Your task to perform on an android device: check data usage Image 0: 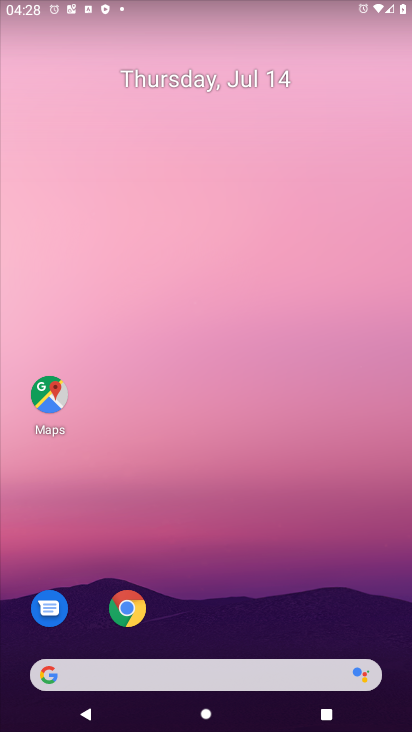
Step 0: drag from (371, 628) to (313, 80)
Your task to perform on an android device: check data usage Image 1: 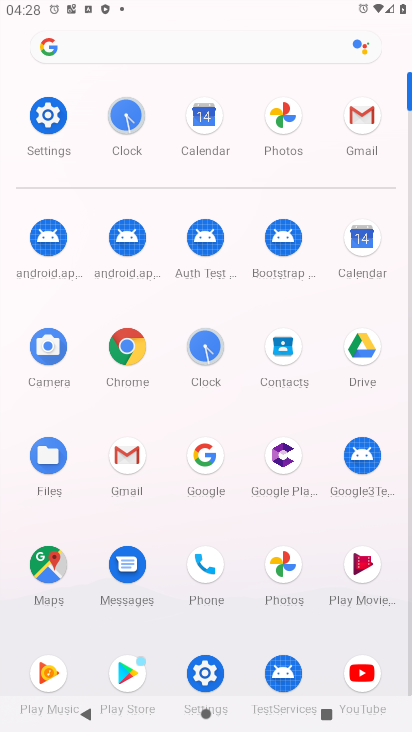
Step 1: click (203, 670)
Your task to perform on an android device: check data usage Image 2: 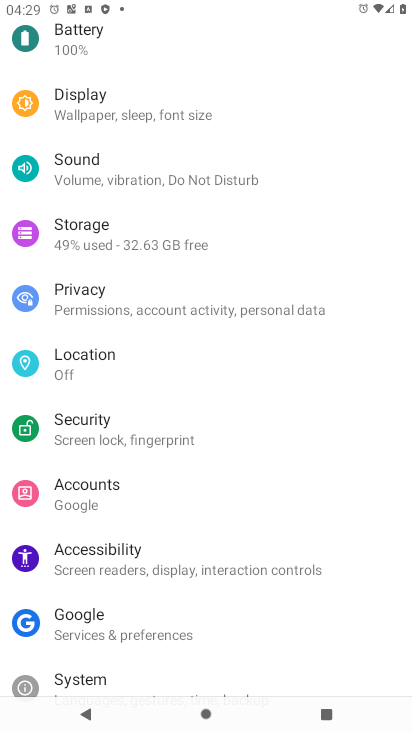
Step 2: drag from (313, 125) to (341, 364)
Your task to perform on an android device: check data usage Image 3: 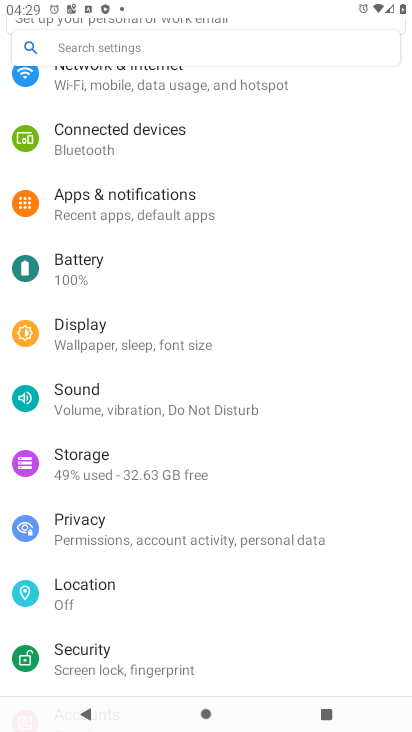
Step 3: drag from (290, 138) to (300, 447)
Your task to perform on an android device: check data usage Image 4: 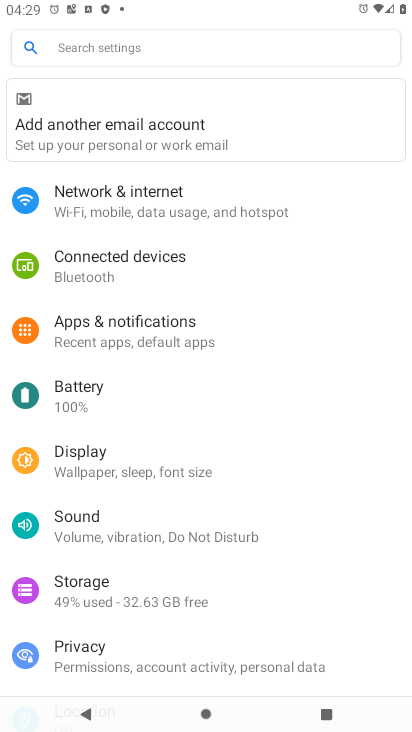
Step 4: click (99, 193)
Your task to perform on an android device: check data usage Image 5: 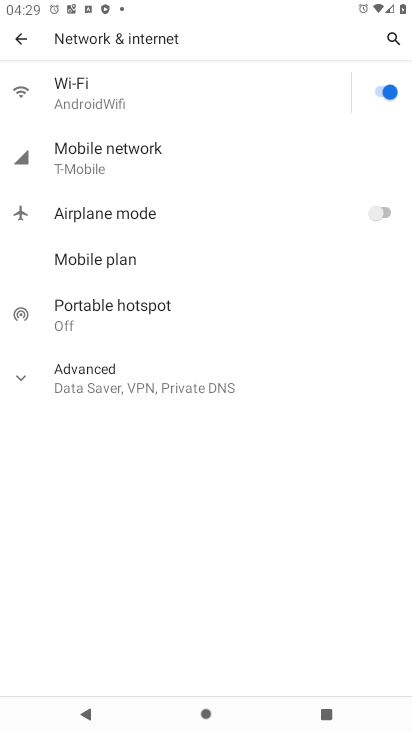
Step 5: click (87, 153)
Your task to perform on an android device: check data usage Image 6: 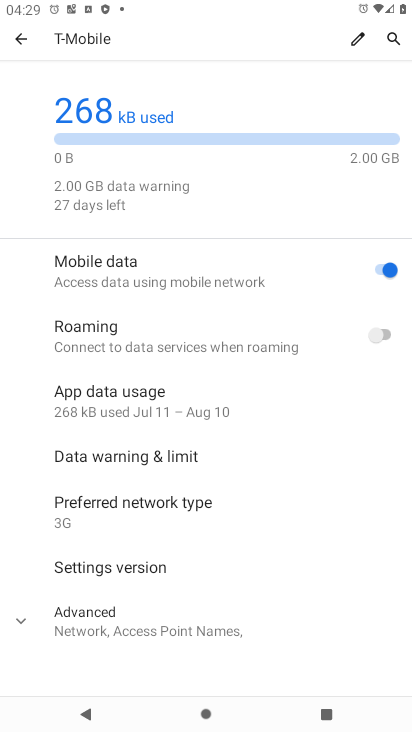
Step 6: drag from (246, 587) to (254, 330)
Your task to perform on an android device: check data usage Image 7: 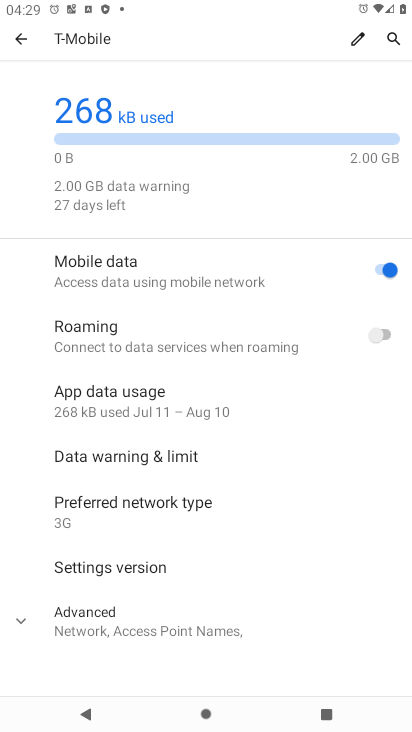
Step 7: click (16, 618)
Your task to perform on an android device: check data usage Image 8: 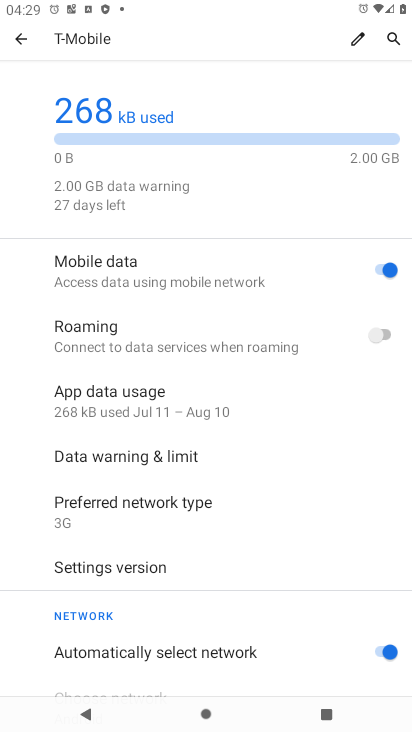
Step 8: task complete